Your task to perform on an android device: open app "Google Find My Device" Image 0: 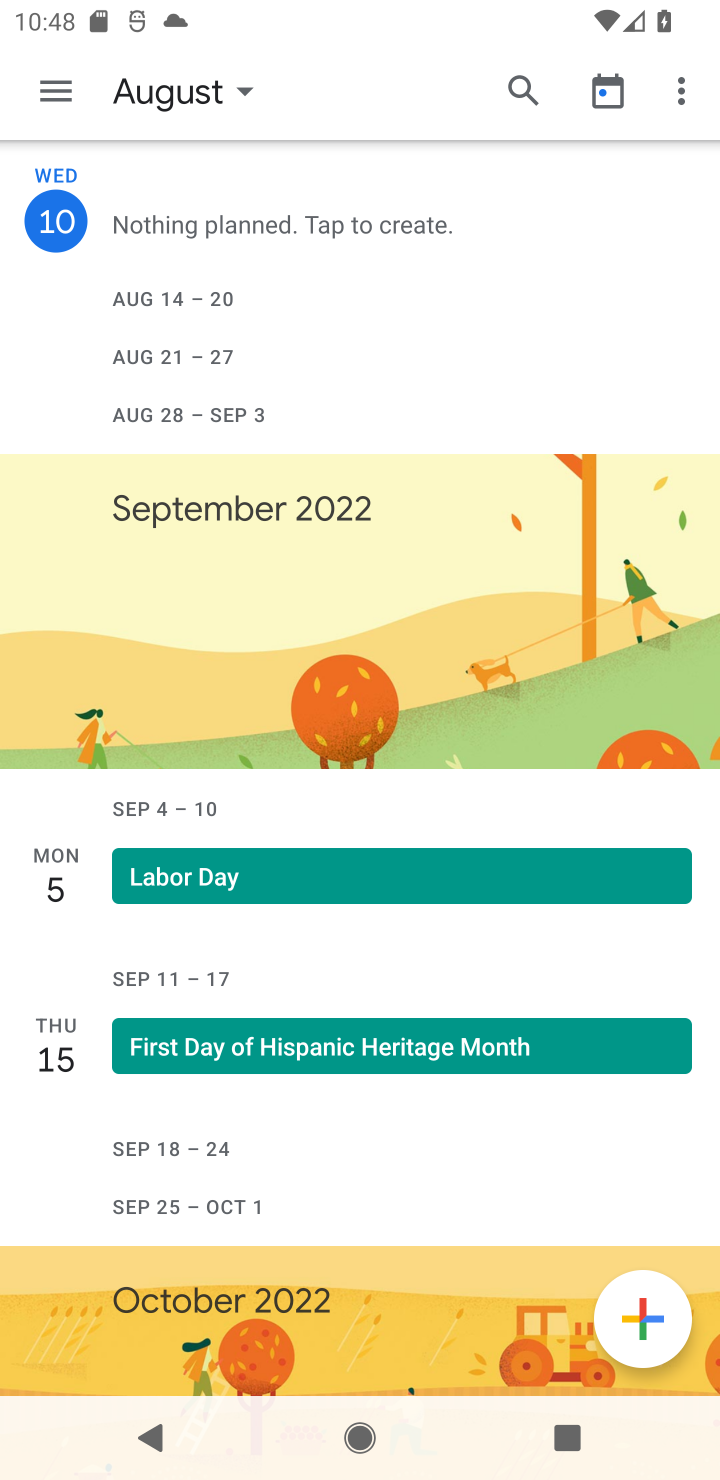
Step 0: press home button
Your task to perform on an android device: open app "Google Find My Device" Image 1: 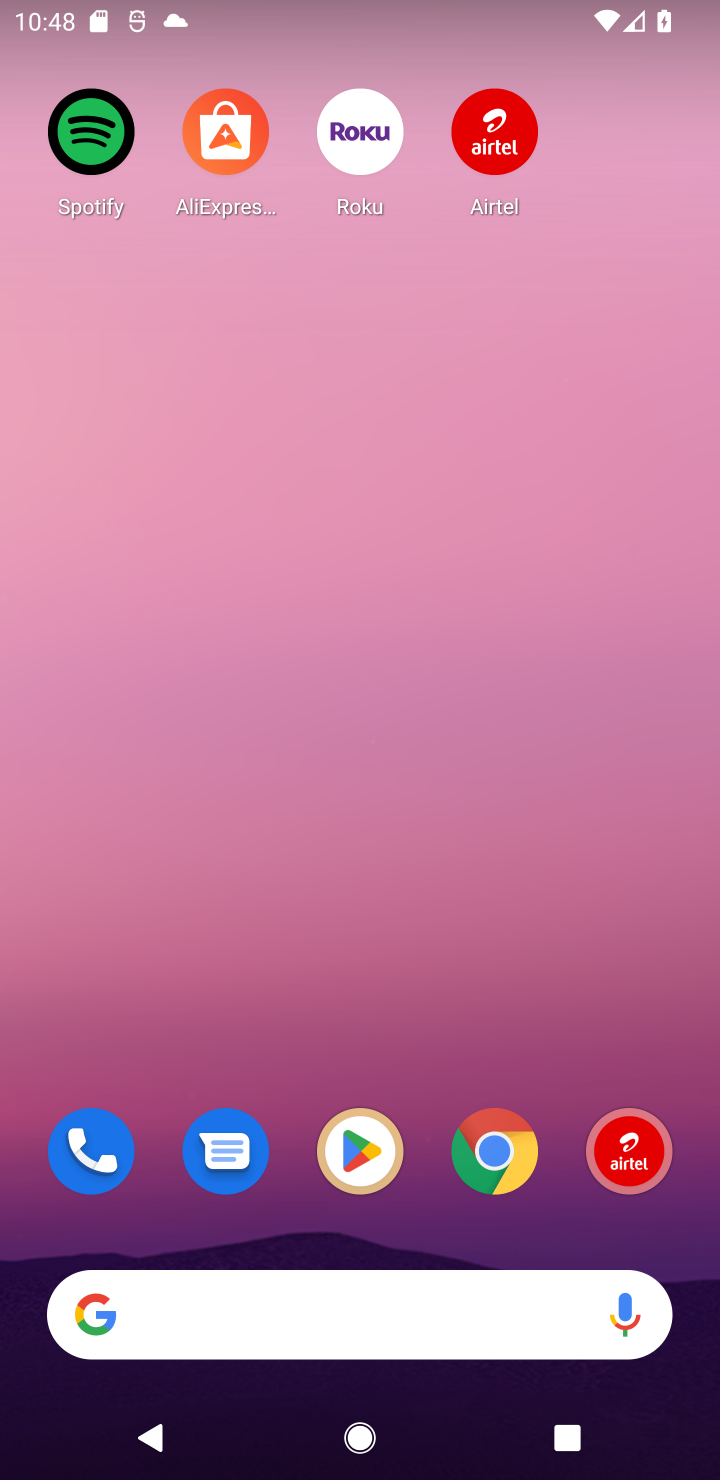
Step 1: drag from (425, 1233) to (434, 333)
Your task to perform on an android device: open app "Google Find My Device" Image 2: 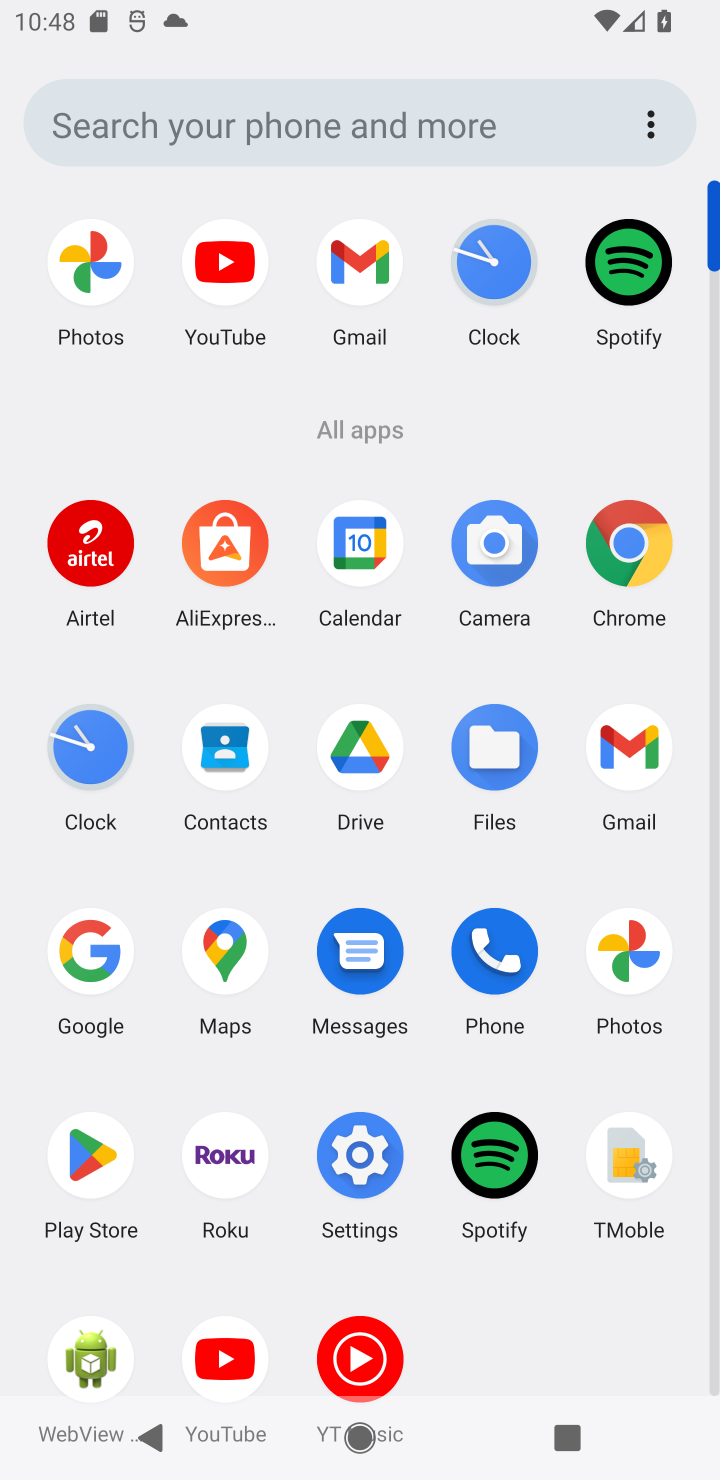
Step 2: click (88, 1141)
Your task to perform on an android device: open app "Google Find My Device" Image 3: 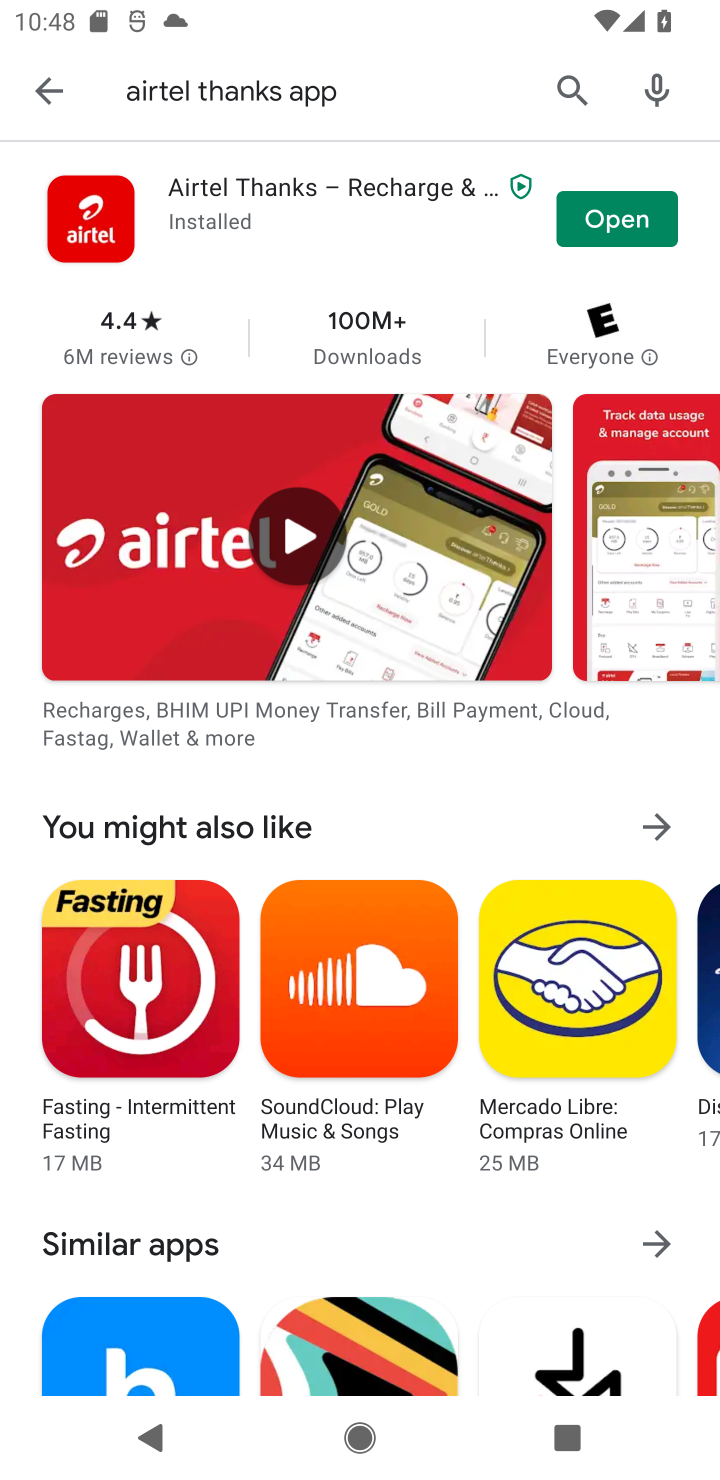
Step 3: click (567, 100)
Your task to perform on an android device: open app "Google Find My Device" Image 4: 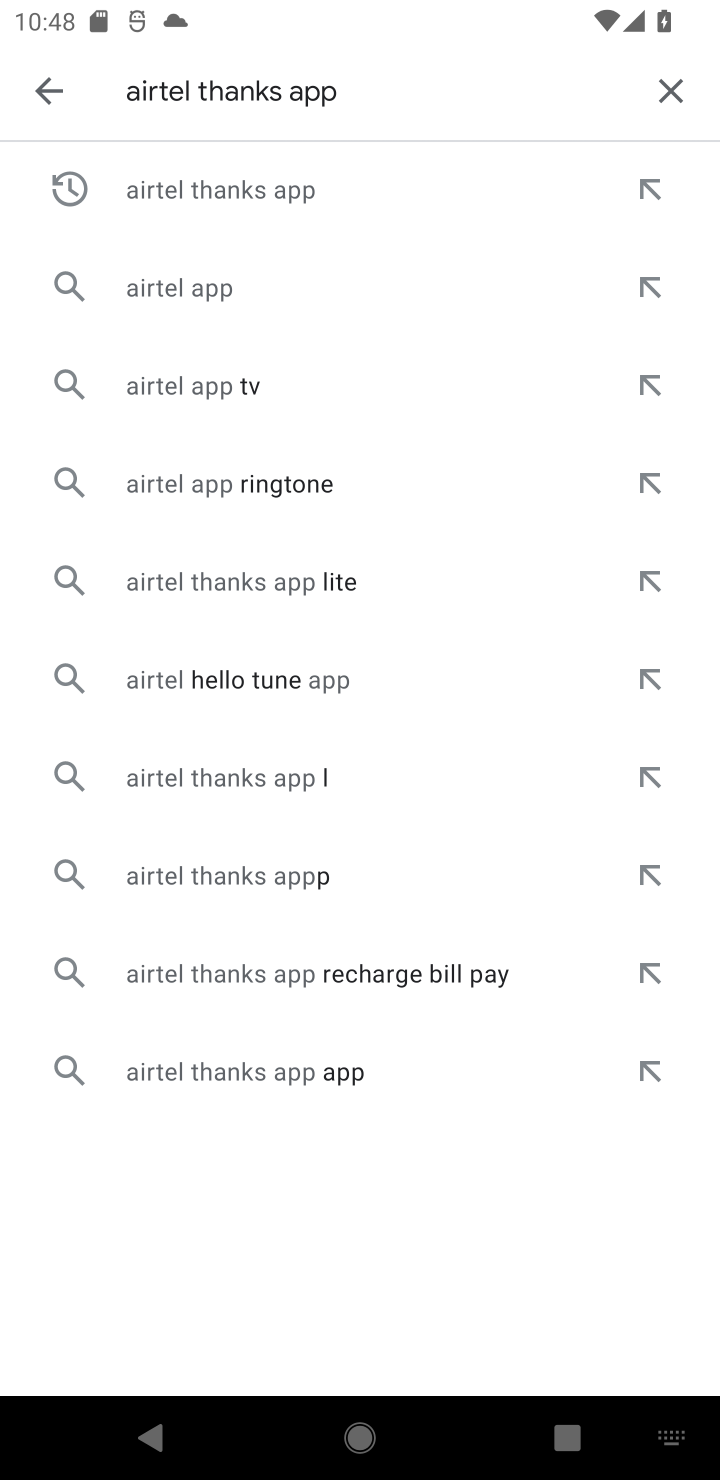
Step 4: click (665, 90)
Your task to perform on an android device: open app "Google Find My Device" Image 5: 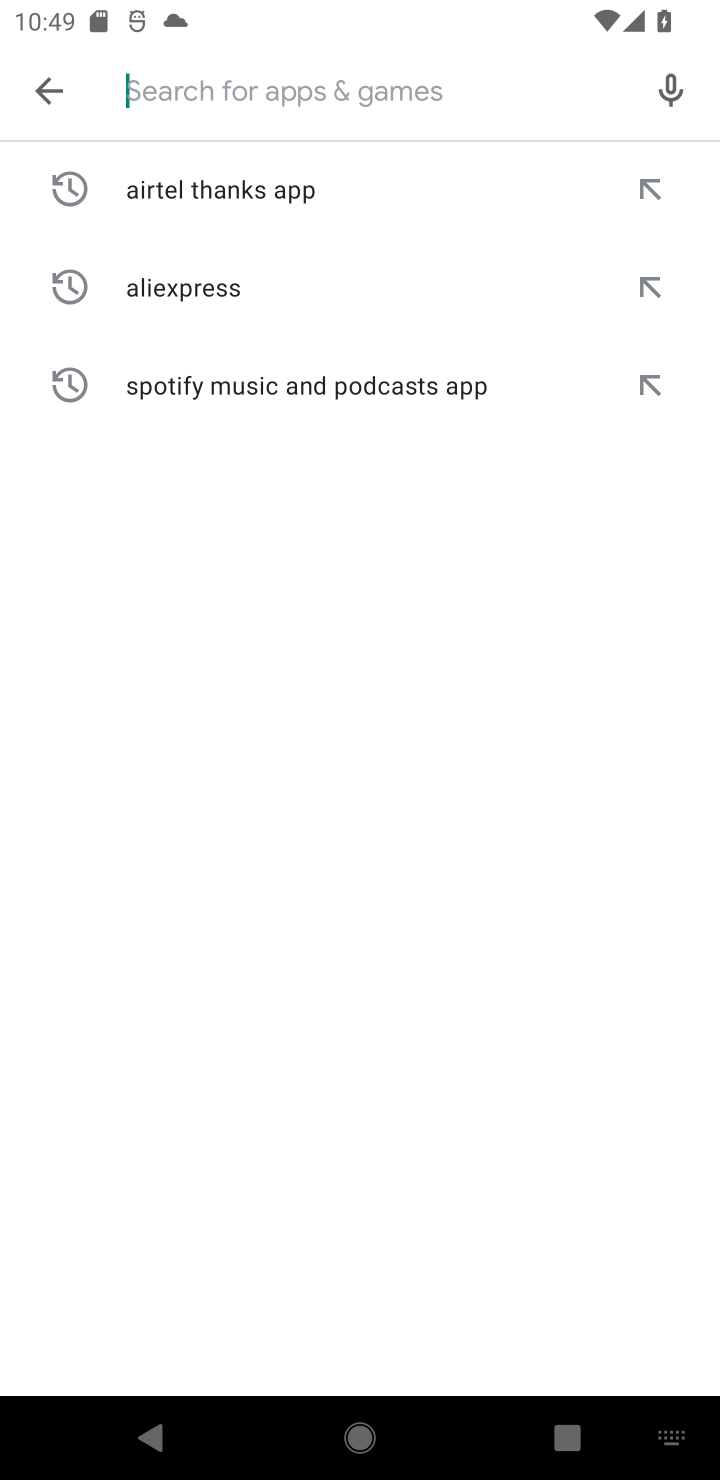
Step 5: type "Google Find My Device"
Your task to perform on an android device: open app "Google Find My Device" Image 6: 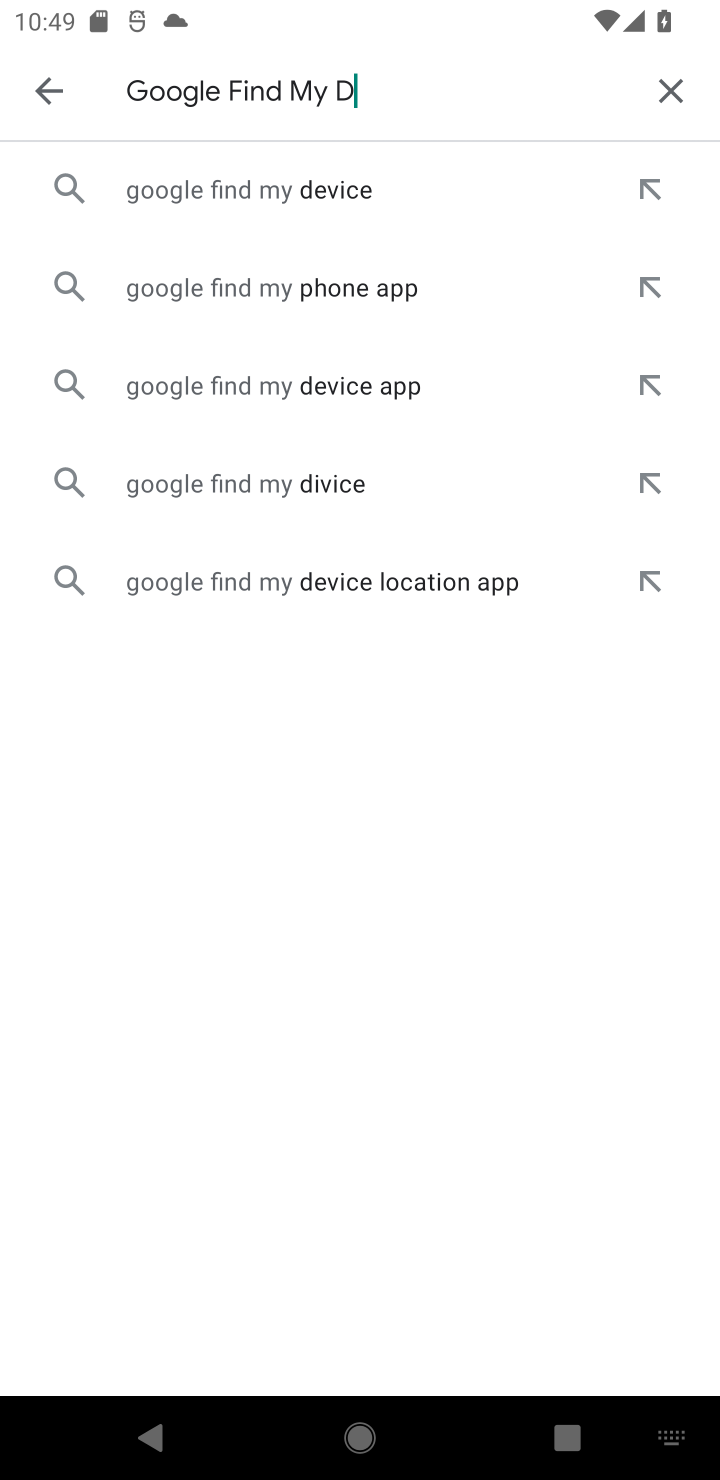
Step 6: type ""
Your task to perform on an android device: open app "Google Find My Device" Image 7: 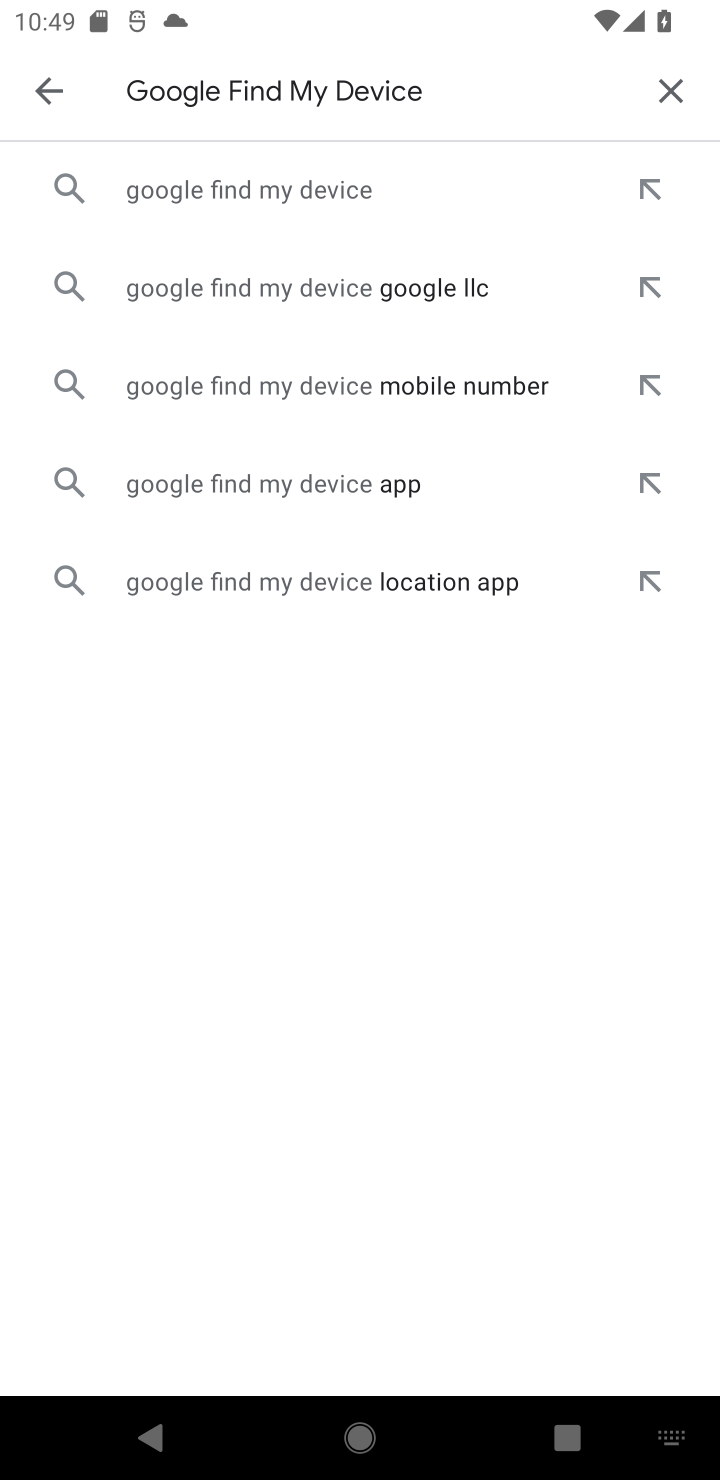
Step 7: click (219, 174)
Your task to perform on an android device: open app "Google Find My Device" Image 8: 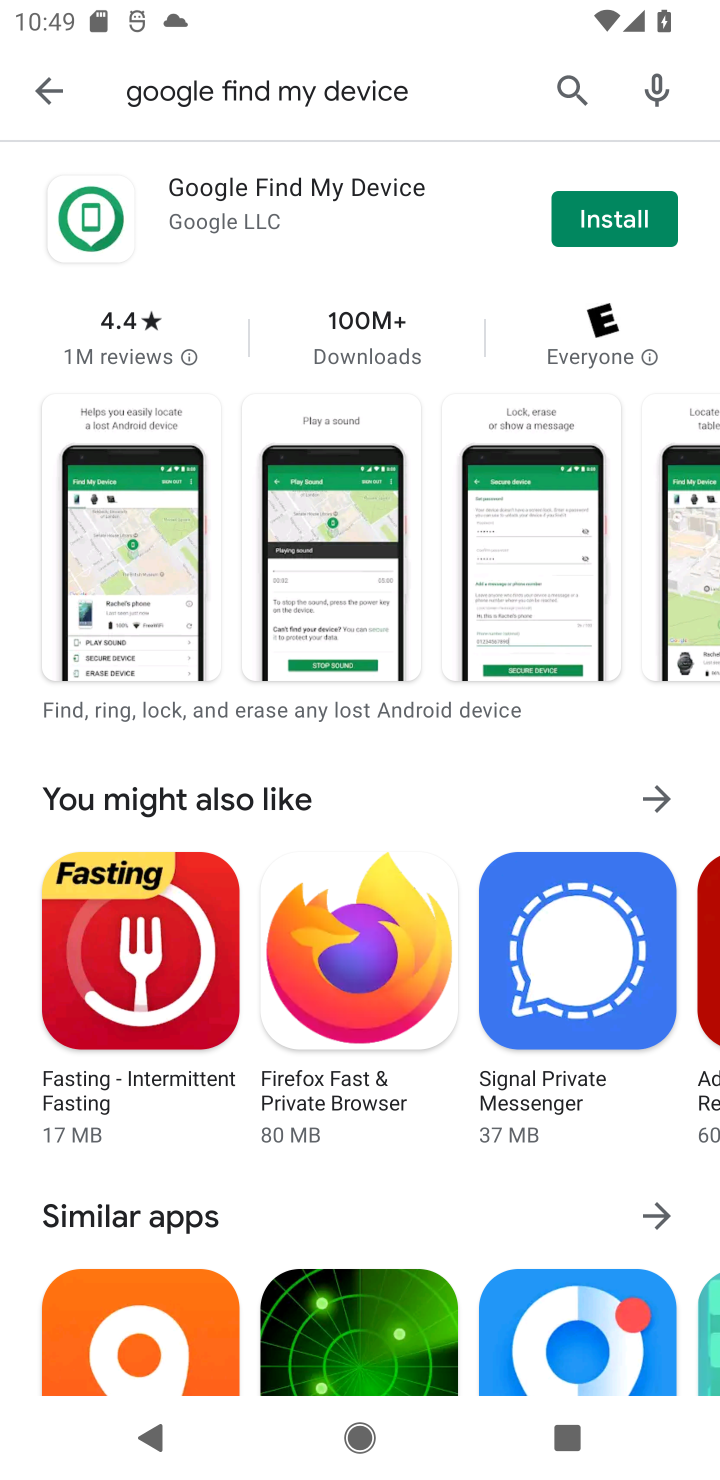
Step 8: task complete